Your task to perform on an android device: When is my next appointment? Image 0: 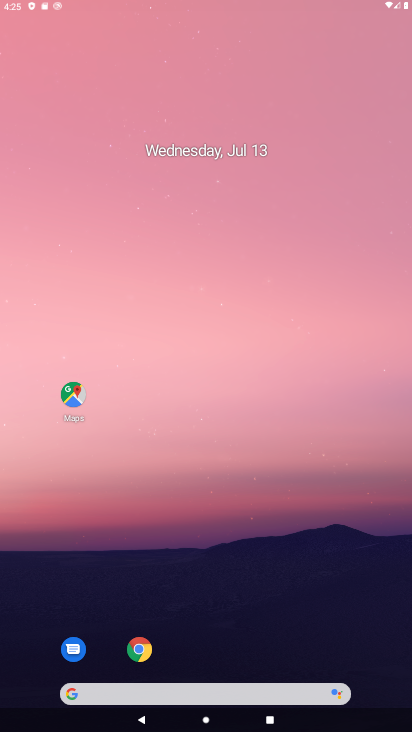
Step 0: drag from (294, 606) to (231, 6)
Your task to perform on an android device: When is my next appointment? Image 1: 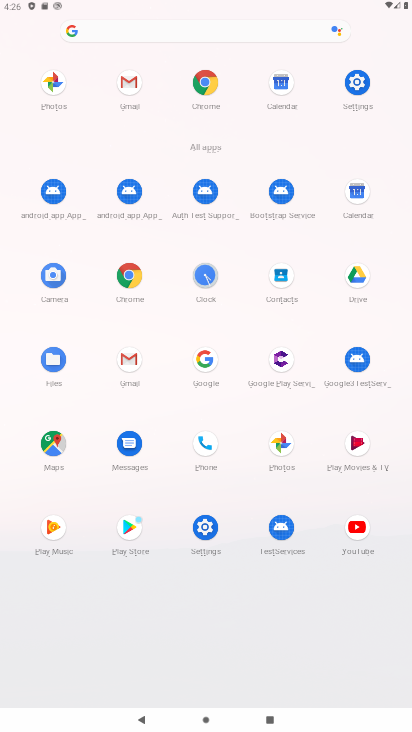
Step 1: click (352, 198)
Your task to perform on an android device: When is my next appointment? Image 2: 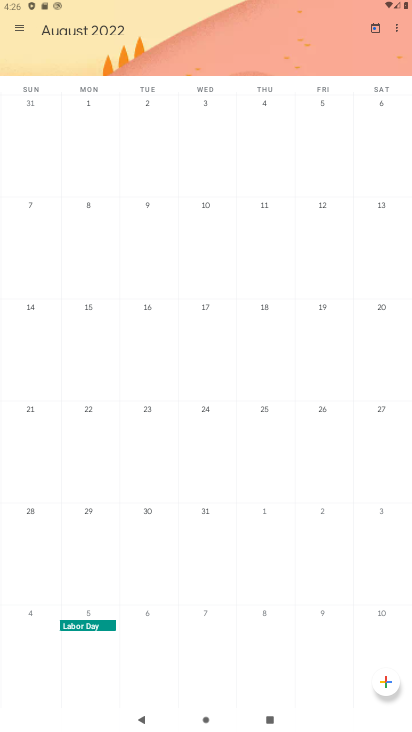
Step 2: click (143, 612)
Your task to perform on an android device: When is my next appointment? Image 3: 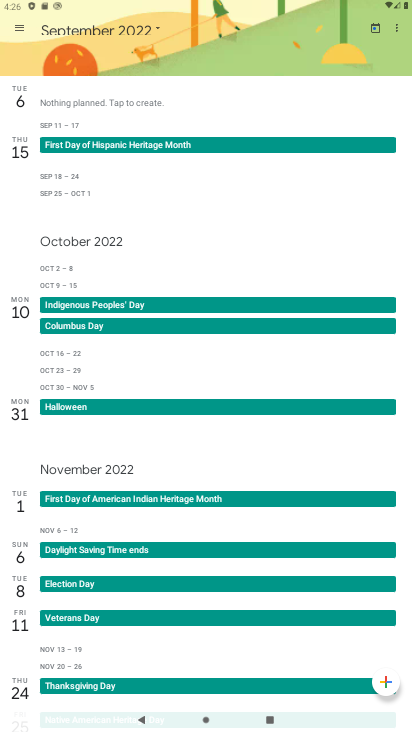
Step 3: task complete